Your task to perform on an android device: allow notifications from all sites in the chrome app Image 0: 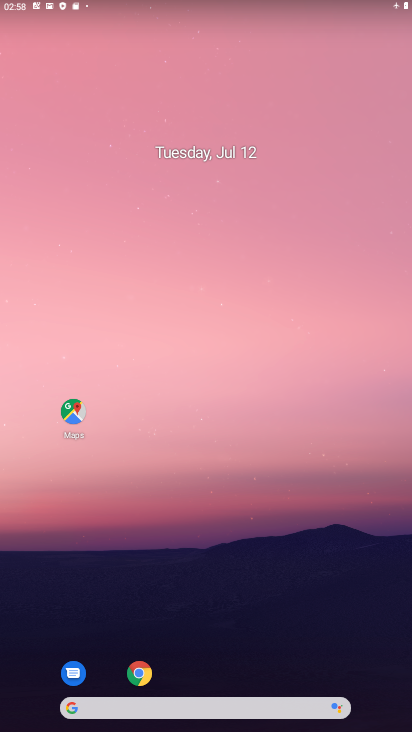
Step 0: press home button
Your task to perform on an android device: allow notifications from all sites in the chrome app Image 1: 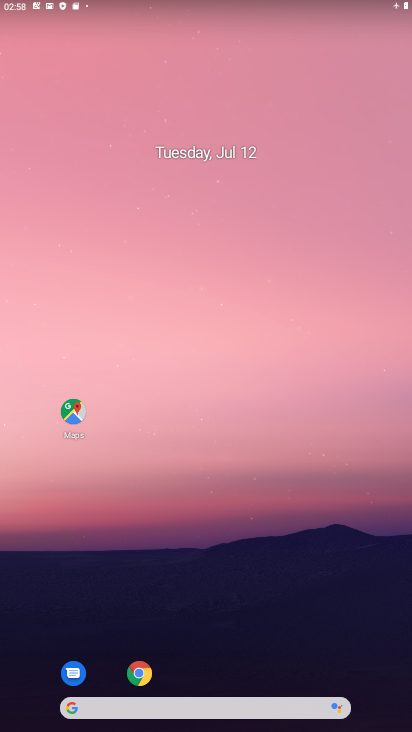
Step 1: drag from (219, 642) to (251, 92)
Your task to perform on an android device: allow notifications from all sites in the chrome app Image 2: 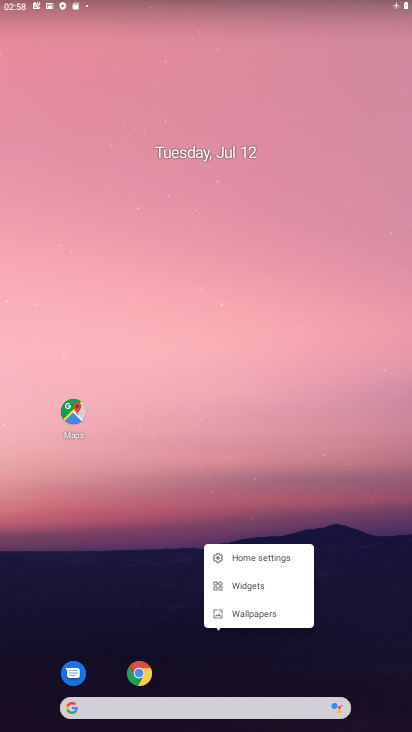
Step 2: click (268, 660)
Your task to perform on an android device: allow notifications from all sites in the chrome app Image 3: 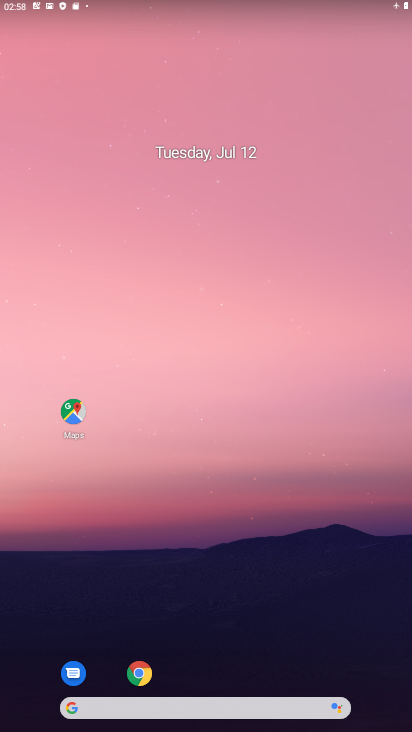
Step 3: drag from (261, 653) to (197, 68)
Your task to perform on an android device: allow notifications from all sites in the chrome app Image 4: 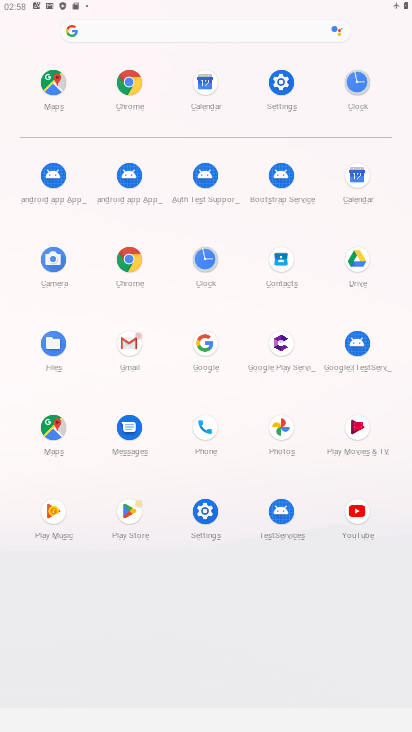
Step 4: click (127, 258)
Your task to perform on an android device: allow notifications from all sites in the chrome app Image 5: 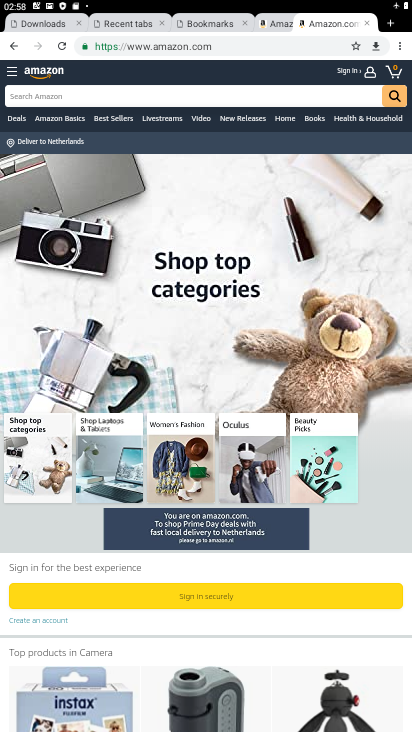
Step 5: drag from (398, 41) to (304, 290)
Your task to perform on an android device: allow notifications from all sites in the chrome app Image 6: 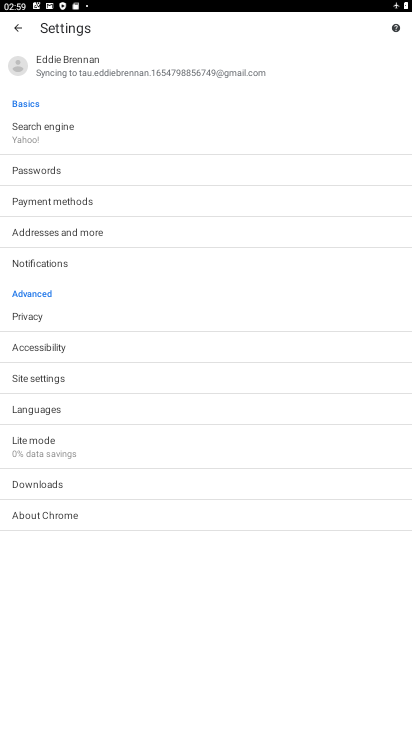
Step 6: click (29, 378)
Your task to perform on an android device: allow notifications from all sites in the chrome app Image 7: 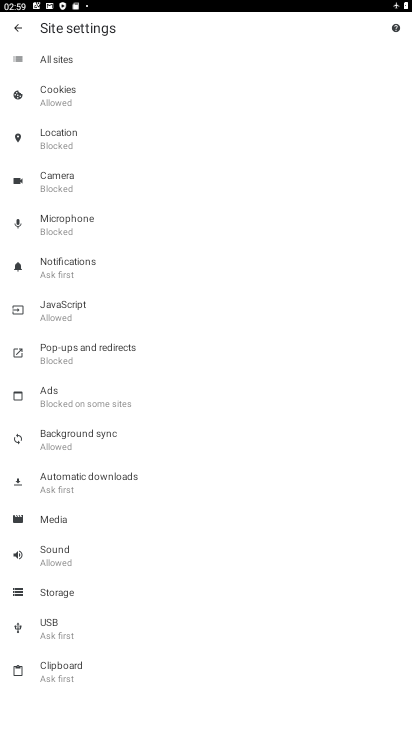
Step 7: click (68, 260)
Your task to perform on an android device: allow notifications from all sites in the chrome app Image 8: 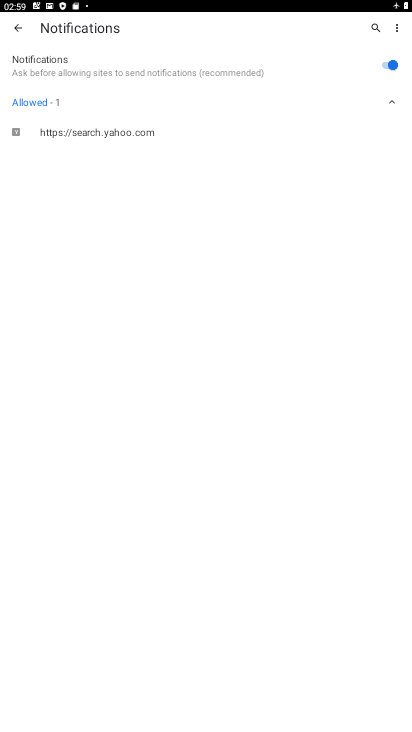
Step 8: task complete